Your task to perform on an android device: check battery use Image 0: 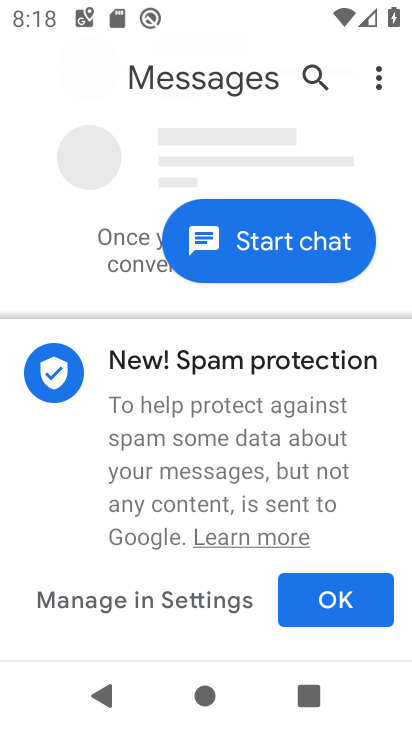
Step 0: press back button
Your task to perform on an android device: check battery use Image 1: 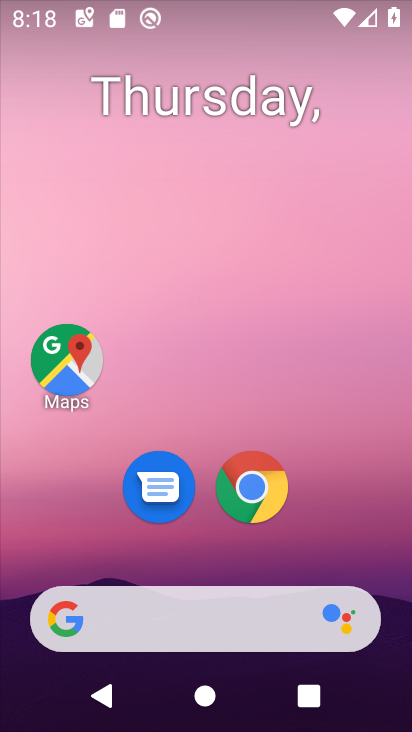
Step 1: press back button
Your task to perform on an android device: check battery use Image 2: 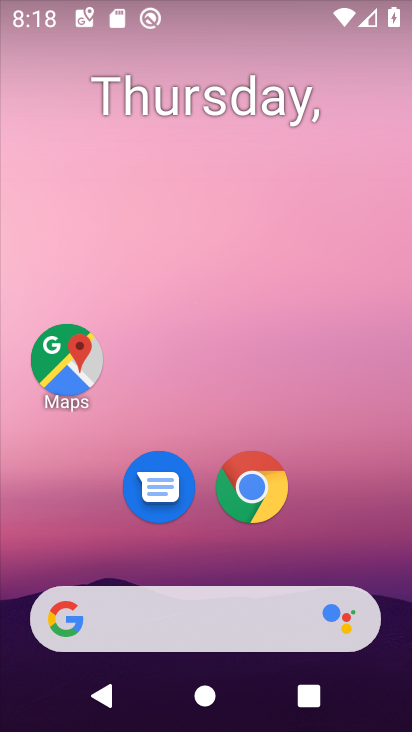
Step 2: drag from (175, 524) to (243, 6)
Your task to perform on an android device: check battery use Image 3: 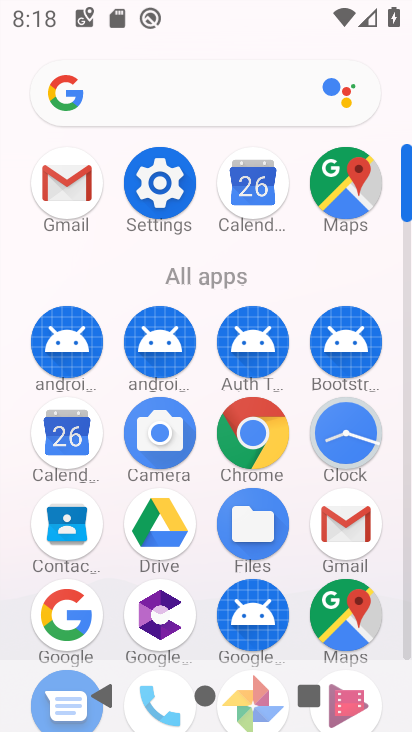
Step 3: click (161, 172)
Your task to perform on an android device: check battery use Image 4: 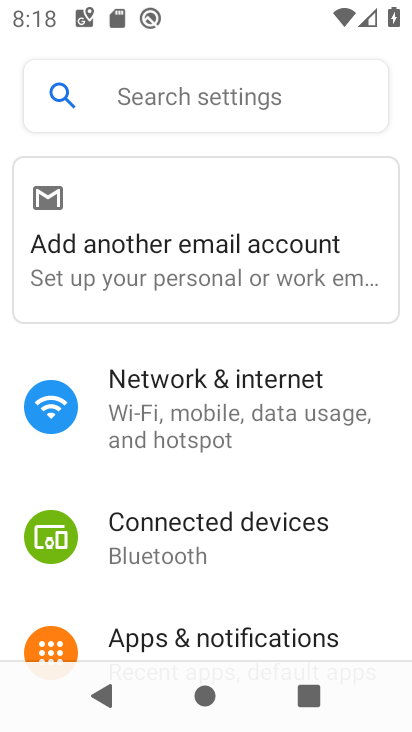
Step 4: drag from (210, 579) to (245, 229)
Your task to perform on an android device: check battery use Image 5: 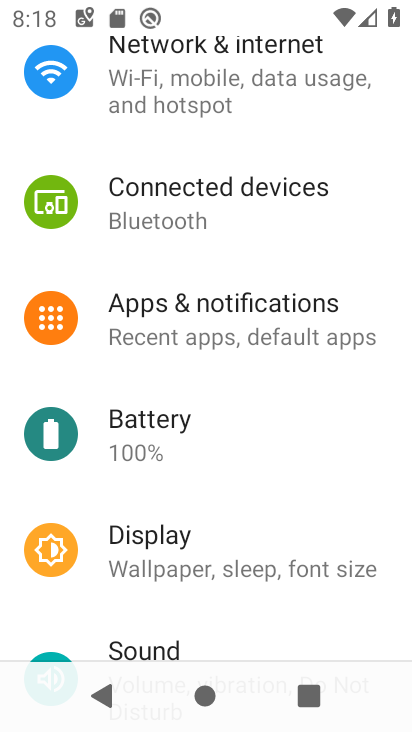
Step 5: click (165, 424)
Your task to perform on an android device: check battery use Image 6: 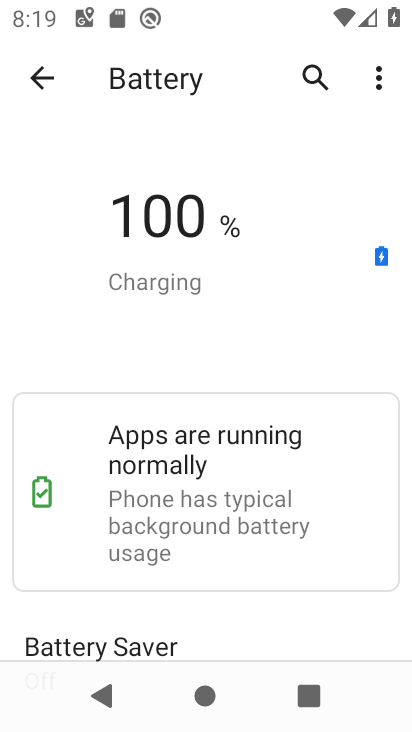
Step 6: click (377, 67)
Your task to perform on an android device: check battery use Image 7: 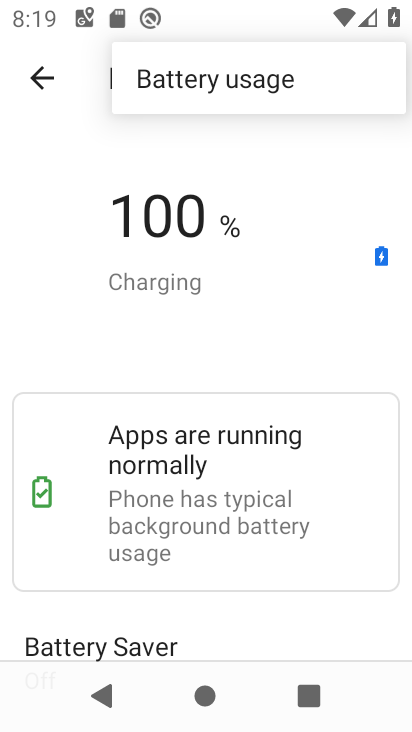
Step 7: click (267, 89)
Your task to perform on an android device: check battery use Image 8: 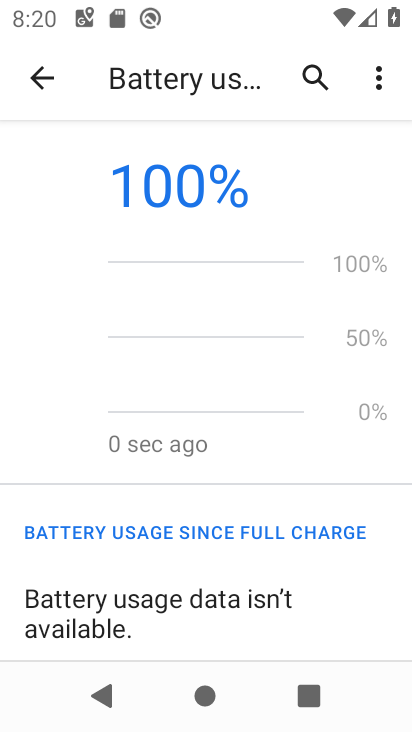
Step 8: task complete